Your task to perform on an android device: turn smart compose on in the gmail app Image 0: 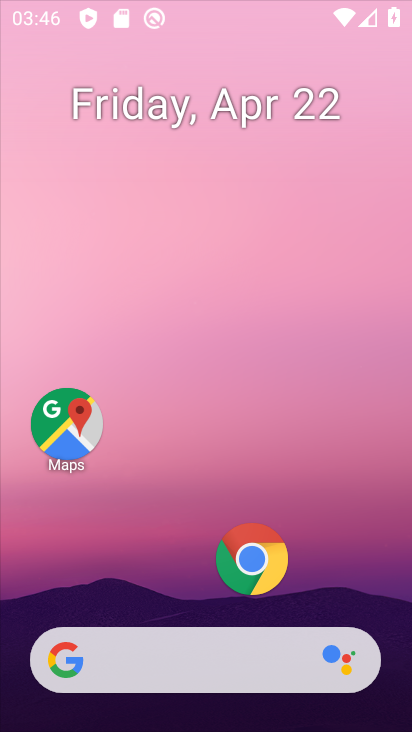
Step 0: click (205, 196)
Your task to perform on an android device: turn smart compose on in the gmail app Image 1: 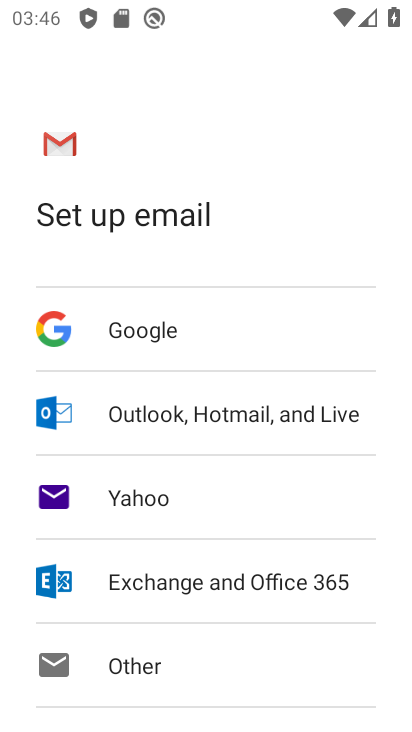
Step 1: press home button
Your task to perform on an android device: turn smart compose on in the gmail app Image 2: 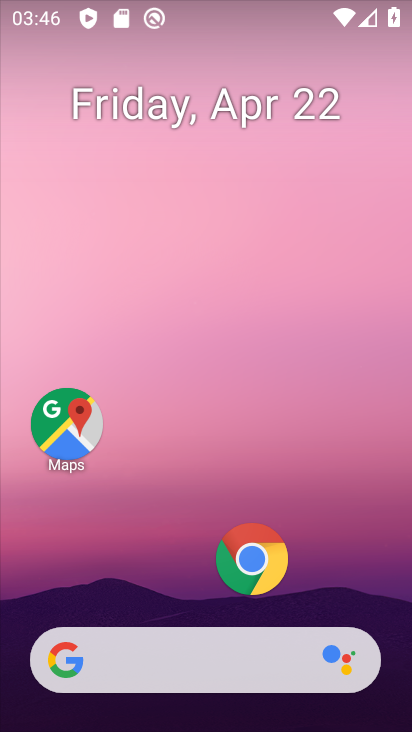
Step 2: drag from (144, 559) to (180, 20)
Your task to perform on an android device: turn smart compose on in the gmail app Image 3: 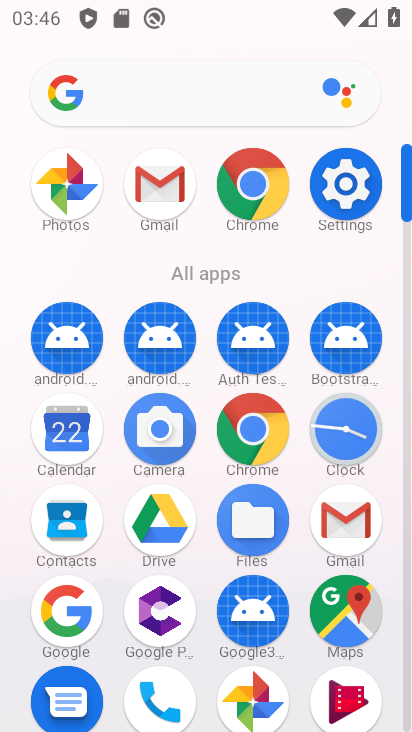
Step 3: click (345, 510)
Your task to perform on an android device: turn smart compose on in the gmail app Image 4: 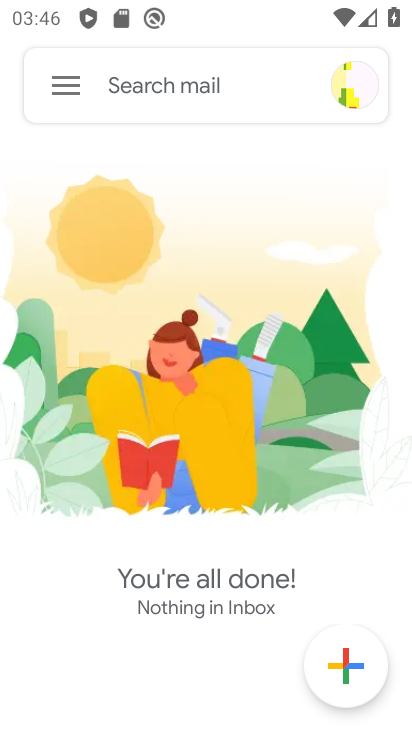
Step 4: click (49, 84)
Your task to perform on an android device: turn smart compose on in the gmail app Image 5: 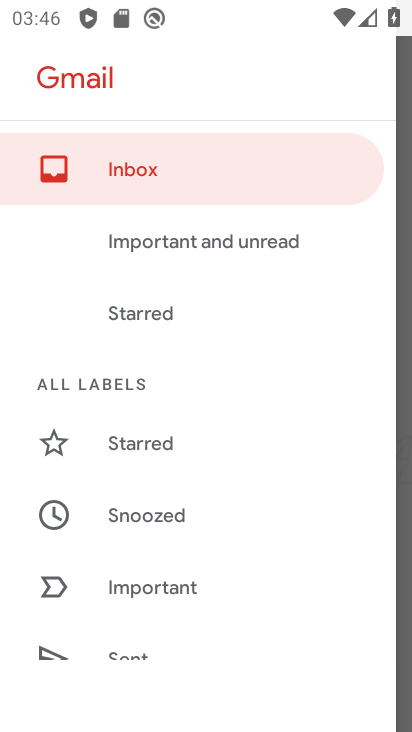
Step 5: drag from (126, 560) to (167, 251)
Your task to perform on an android device: turn smart compose on in the gmail app Image 6: 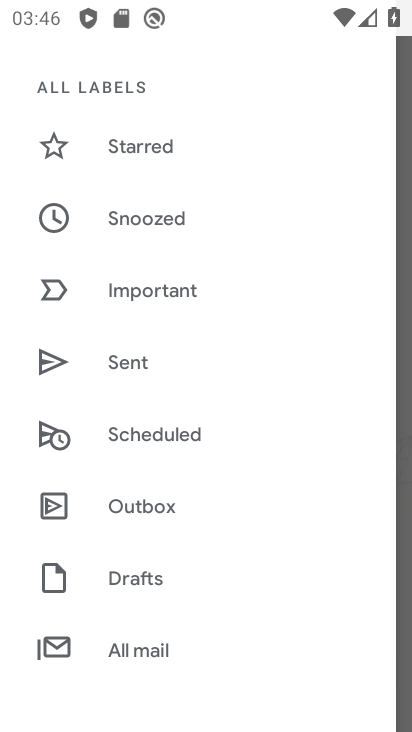
Step 6: drag from (148, 581) to (193, 181)
Your task to perform on an android device: turn smart compose on in the gmail app Image 7: 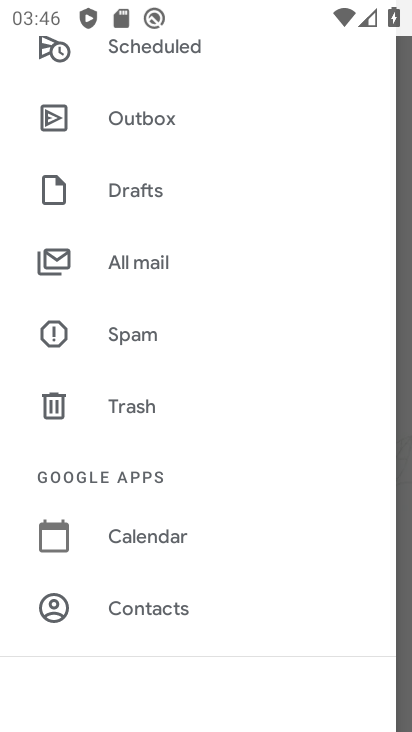
Step 7: drag from (164, 533) to (197, 167)
Your task to perform on an android device: turn smart compose on in the gmail app Image 8: 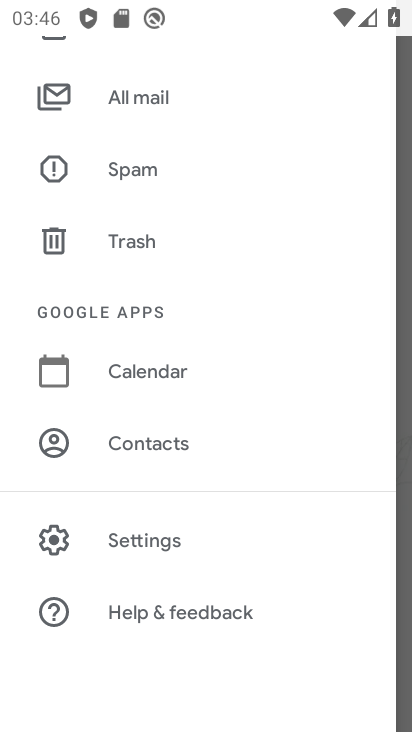
Step 8: click (120, 546)
Your task to perform on an android device: turn smart compose on in the gmail app Image 9: 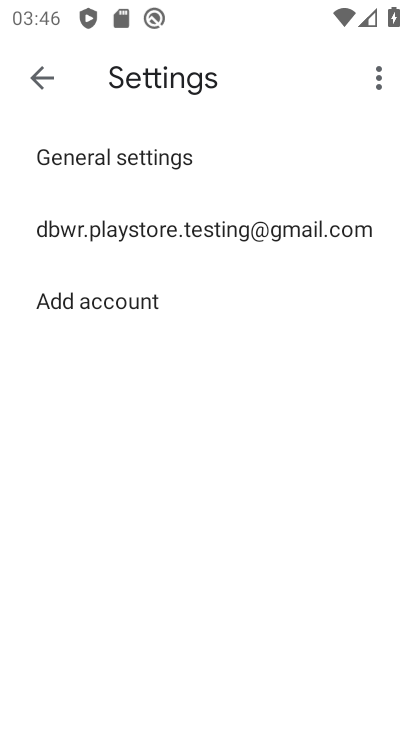
Step 9: click (124, 221)
Your task to perform on an android device: turn smart compose on in the gmail app Image 10: 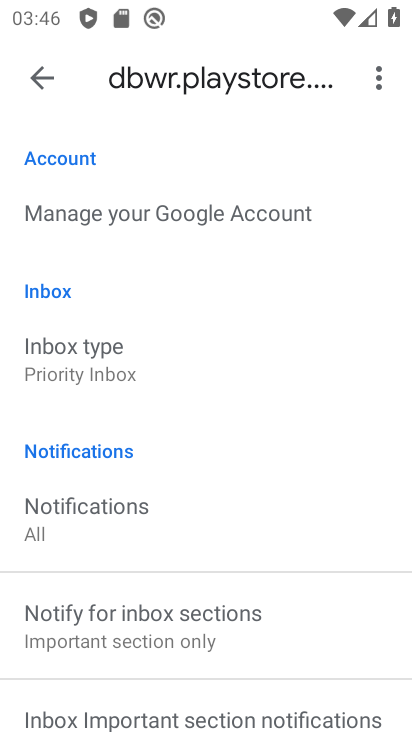
Step 10: task complete